Your task to perform on an android device: Open privacy settings Image 0: 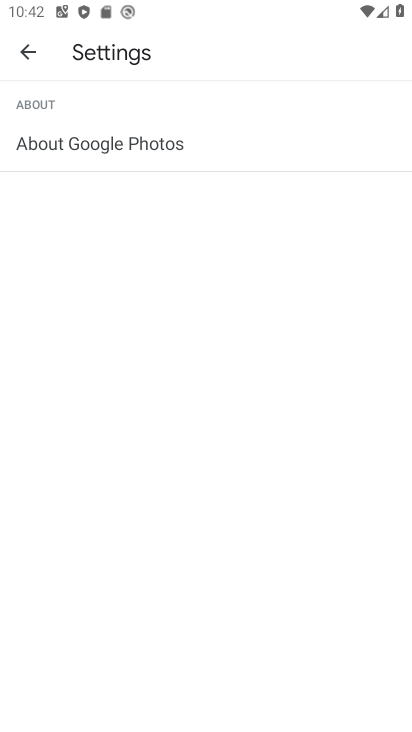
Step 0: task complete